Your task to perform on an android device: Open sound settings Image 0: 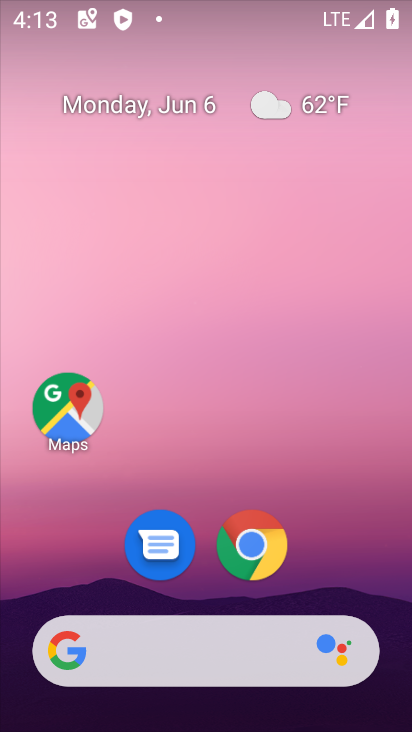
Step 0: drag from (236, 710) to (232, 78)
Your task to perform on an android device: Open sound settings Image 1: 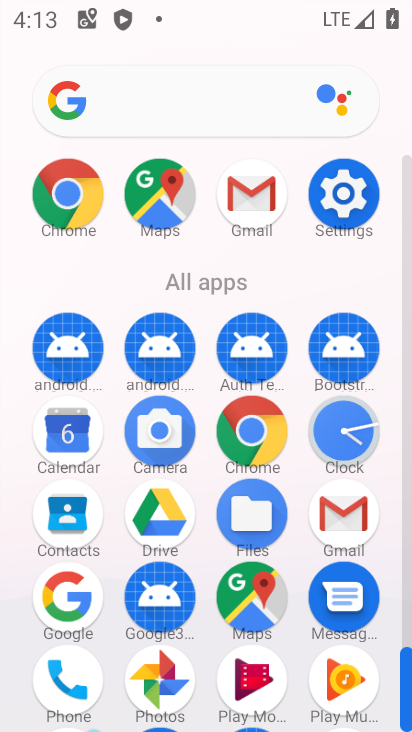
Step 1: click (367, 184)
Your task to perform on an android device: Open sound settings Image 2: 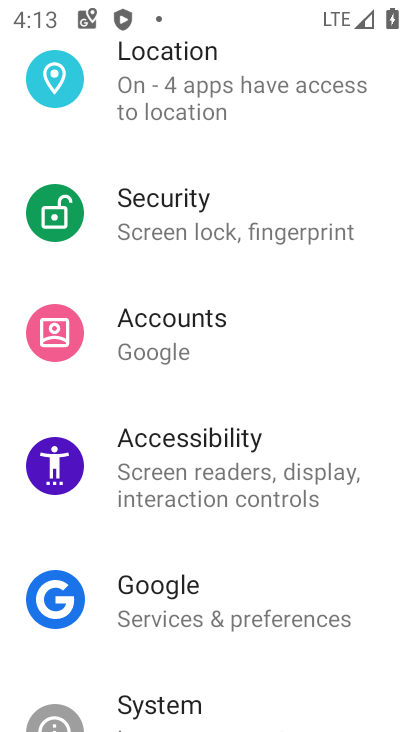
Step 2: drag from (230, 679) to (224, 304)
Your task to perform on an android device: Open sound settings Image 3: 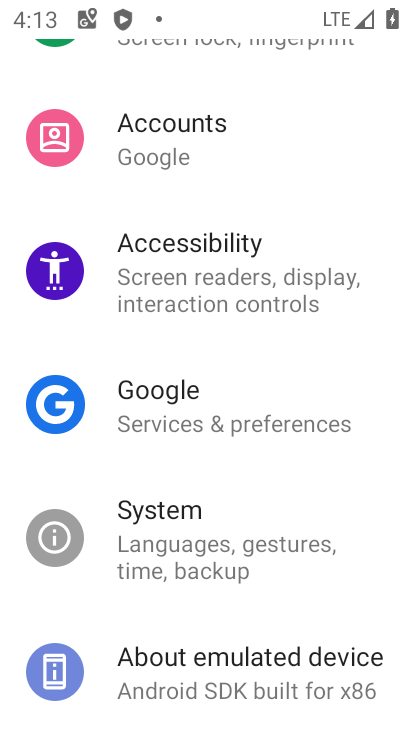
Step 3: drag from (220, 121) to (254, 473)
Your task to perform on an android device: Open sound settings Image 4: 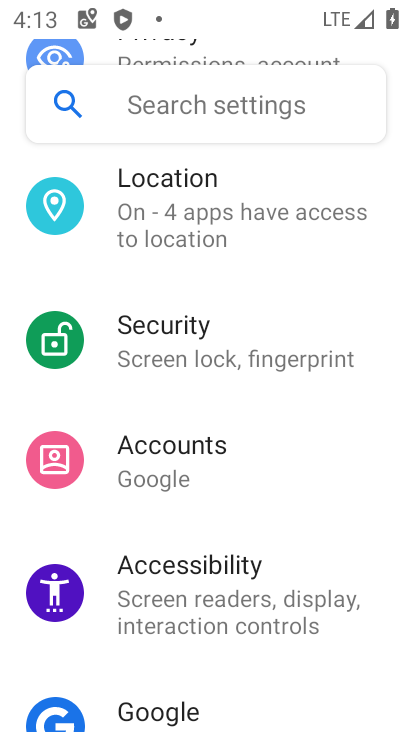
Step 4: drag from (248, 204) to (235, 540)
Your task to perform on an android device: Open sound settings Image 5: 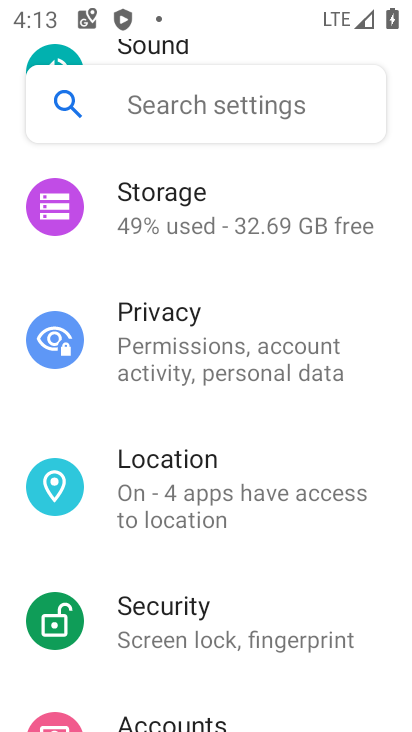
Step 5: drag from (253, 541) to (245, 617)
Your task to perform on an android device: Open sound settings Image 6: 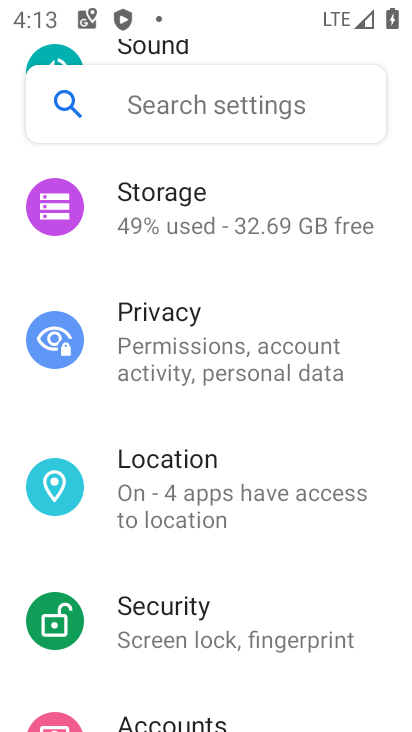
Step 6: drag from (210, 186) to (216, 631)
Your task to perform on an android device: Open sound settings Image 7: 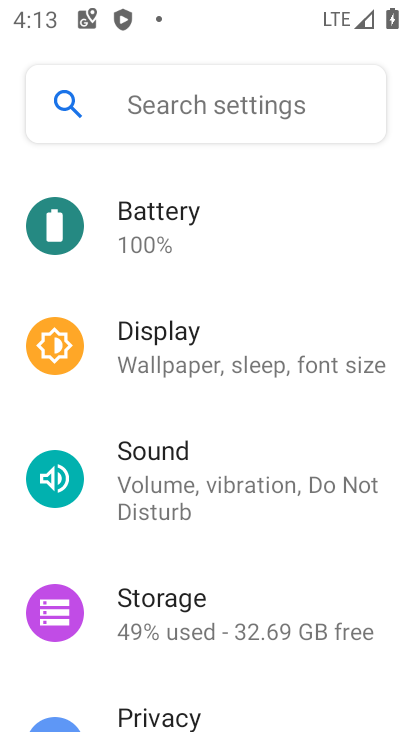
Step 7: click (165, 474)
Your task to perform on an android device: Open sound settings Image 8: 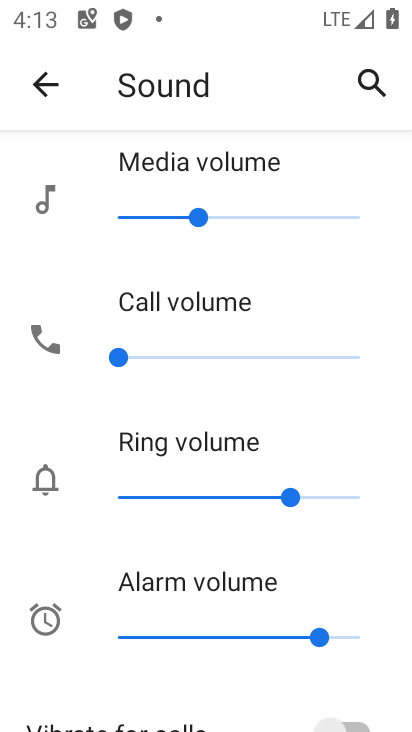
Step 8: task complete